Your task to perform on an android device: Search for "razer thresher" on newegg.com, select the first entry, add it to the cart, then select checkout. Image 0: 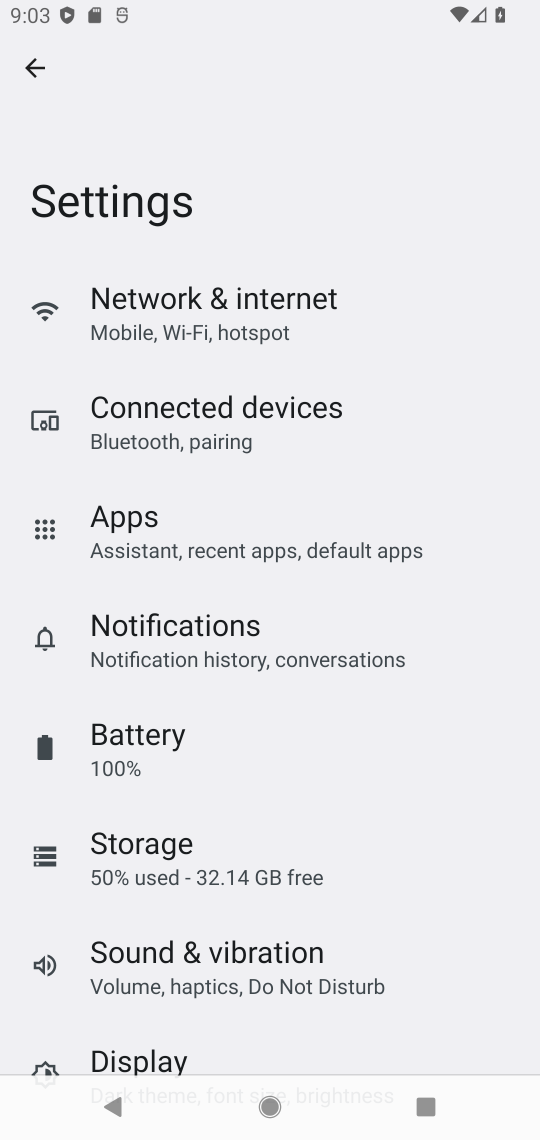
Step 0: press home button
Your task to perform on an android device: Search for "razer thresher" on newegg.com, select the first entry, add it to the cart, then select checkout. Image 1: 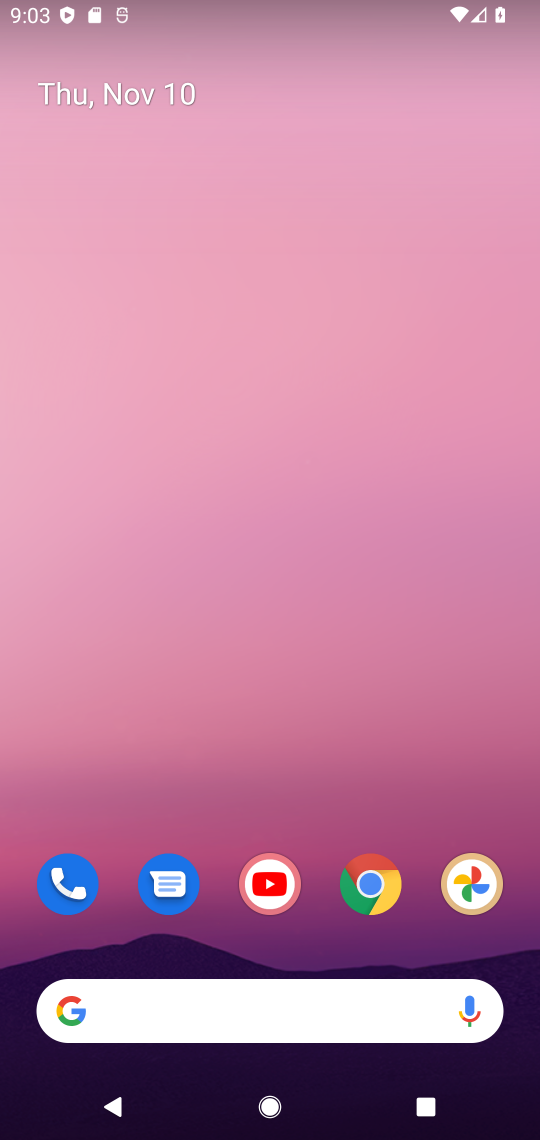
Step 1: click (232, 1004)
Your task to perform on an android device: Search for "razer thresher" on newegg.com, select the first entry, add it to the cart, then select checkout. Image 2: 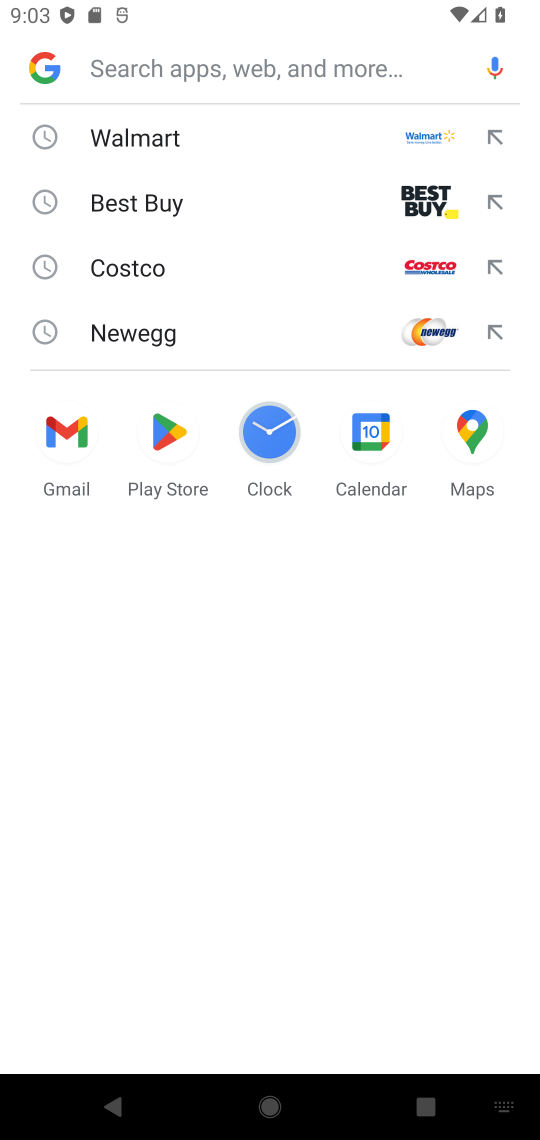
Step 2: click (322, 347)
Your task to perform on an android device: Search for "razer thresher" on newegg.com, select the first entry, add it to the cart, then select checkout. Image 3: 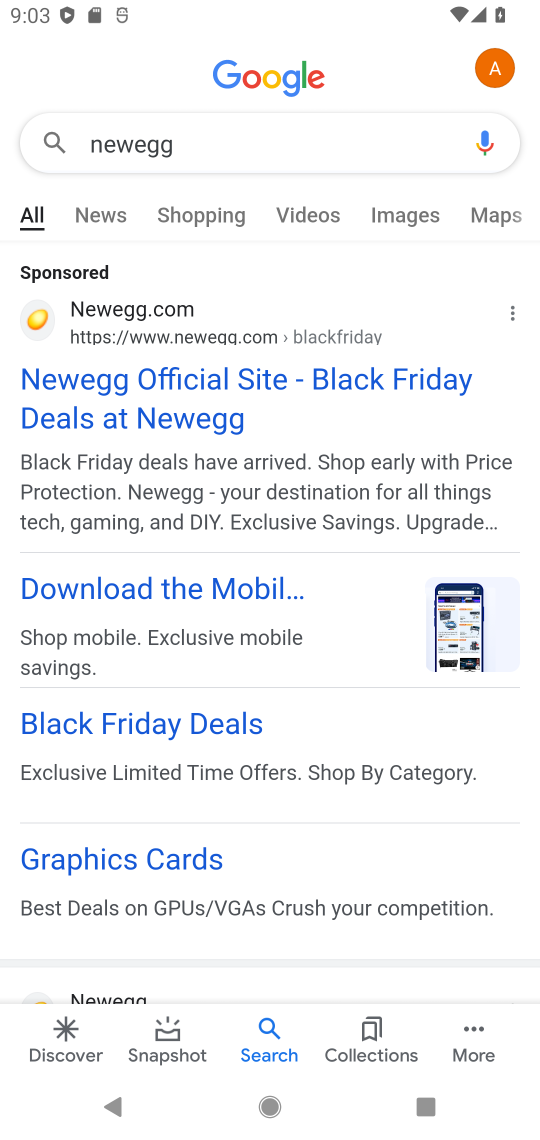
Step 3: click (106, 311)
Your task to perform on an android device: Search for "razer thresher" on newegg.com, select the first entry, add it to the cart, then select checkout. Image 4: 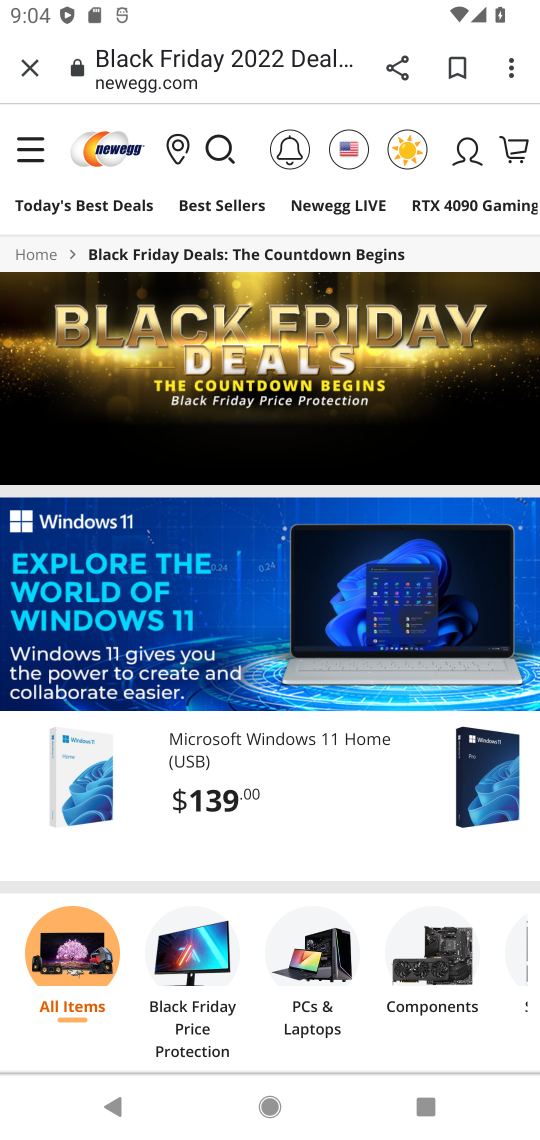
Step 4: click (217, 144)
Your task to perform on an android device: Search for "razer thresher" on newegg.com, select the first entry, add it to the cart, then select checkout. Image 5: 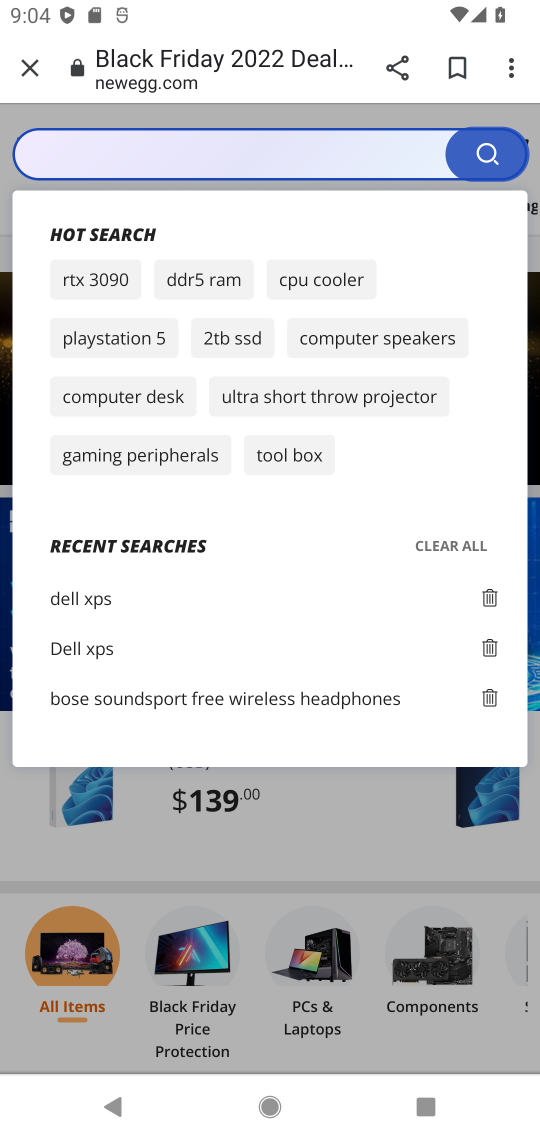
Step 5: click (173, 144)
Your task to perform on an android device: Search for "razer thresher" on newegg.com, select the first entry, add it to the cart, then select checkout. Image 6: 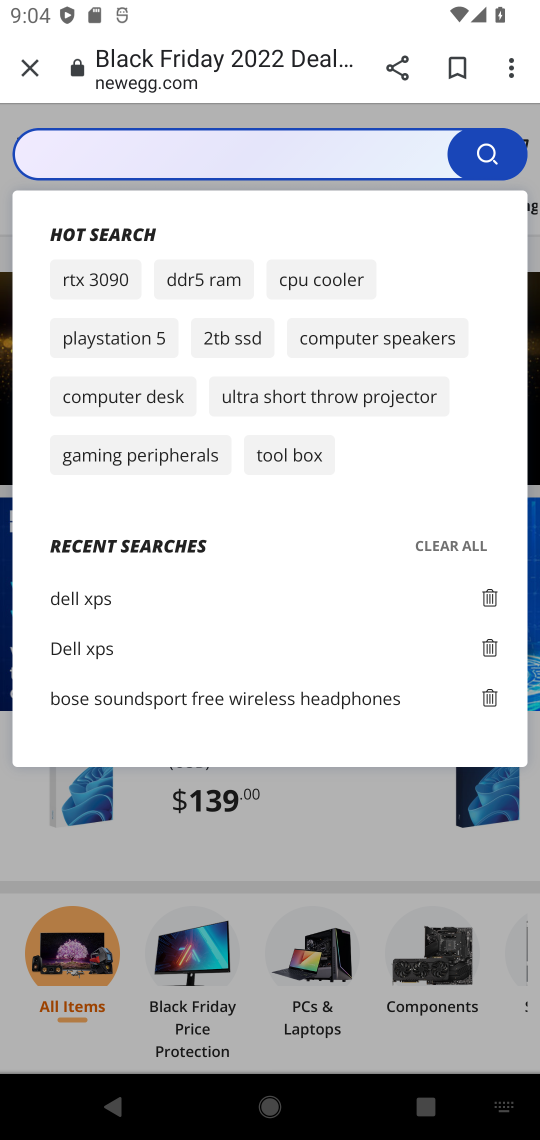
Step 6: type "razer thresher"
Your task to perform on an android device: Search for "razer thresher" on newegg.com, select the first entry, add it to the cart, then select checkout. Image 7: 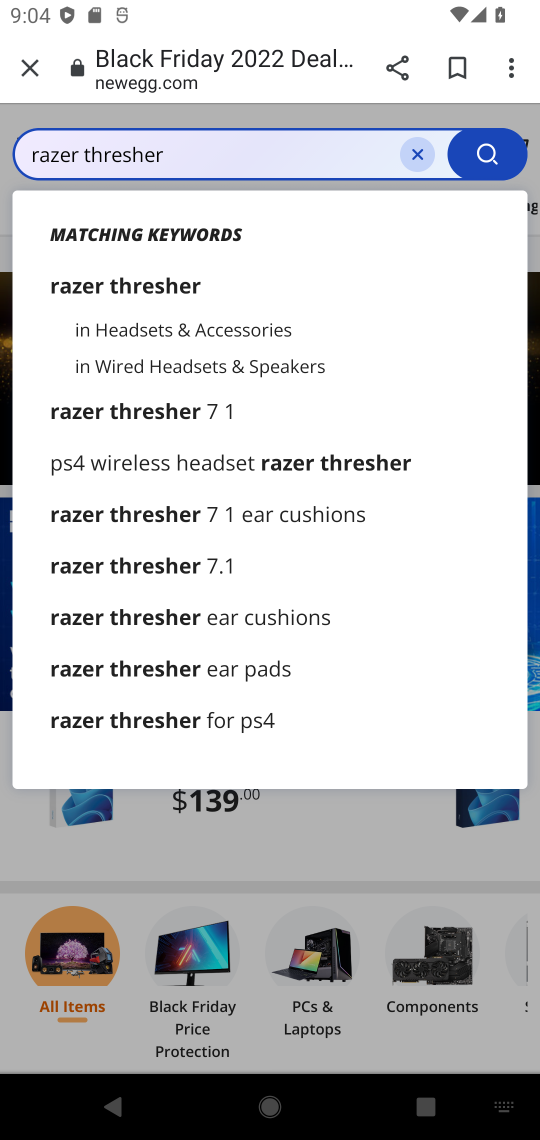
Step 7: click (127, 288)
Your task to perform on an android device: Search for "razer thresher" on newegg.com, select the first entry, add it to the cart, then select checkout. Image 8: 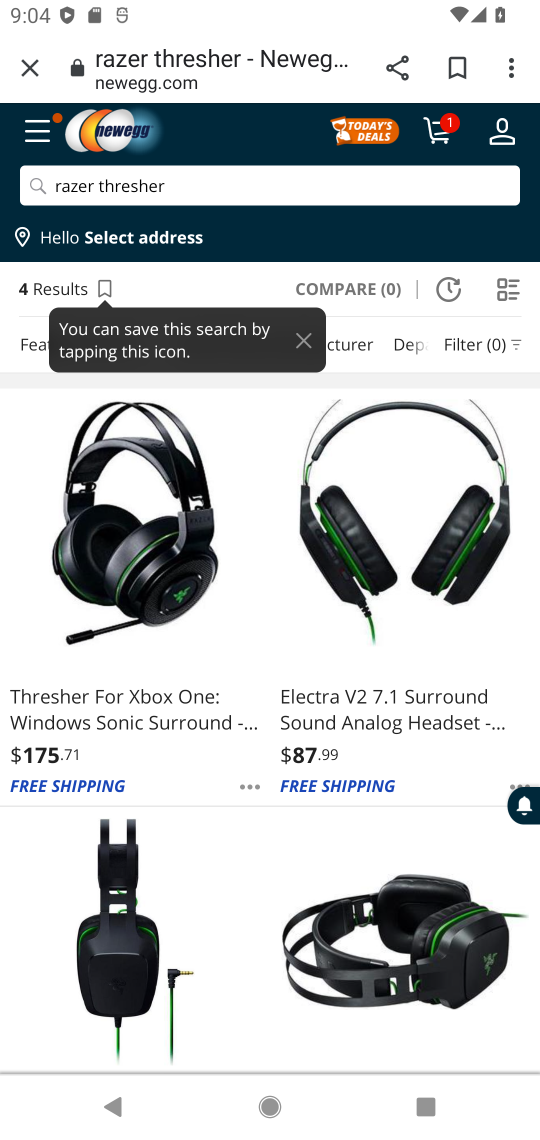
Step 8: click (124, 613)
Your task to perform on an android device: Search for "razer thresher" on newegg.com, select the first entry, add it to the cart, then select checkout. Image 9: 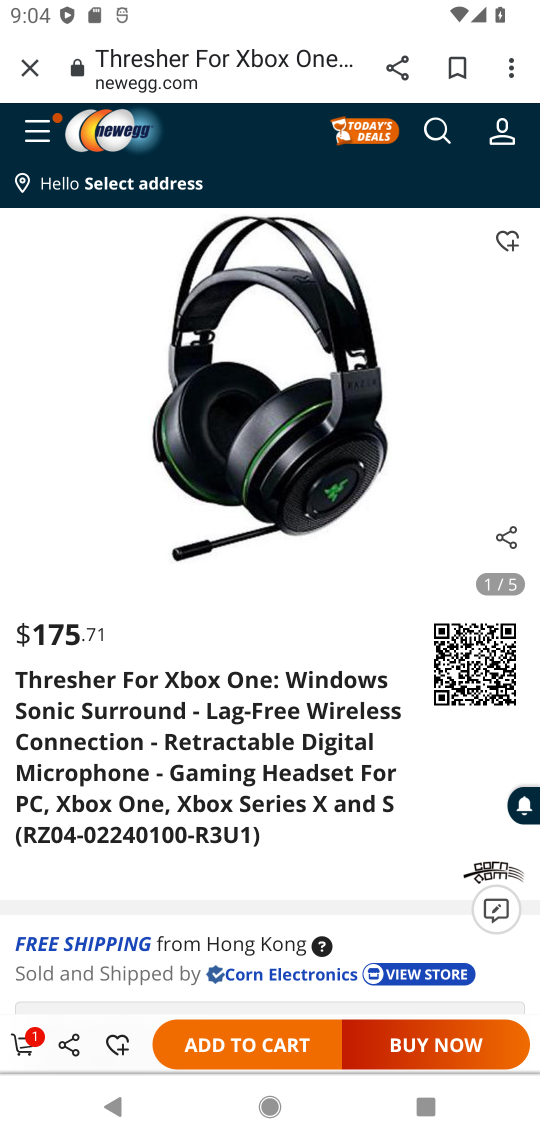
Step 9: click (224, 1047)
Your task to perform on an android device: Search for "razer thresher" on newegg.com, select the first entry, add it to the cart, then select checkout. Image 10: 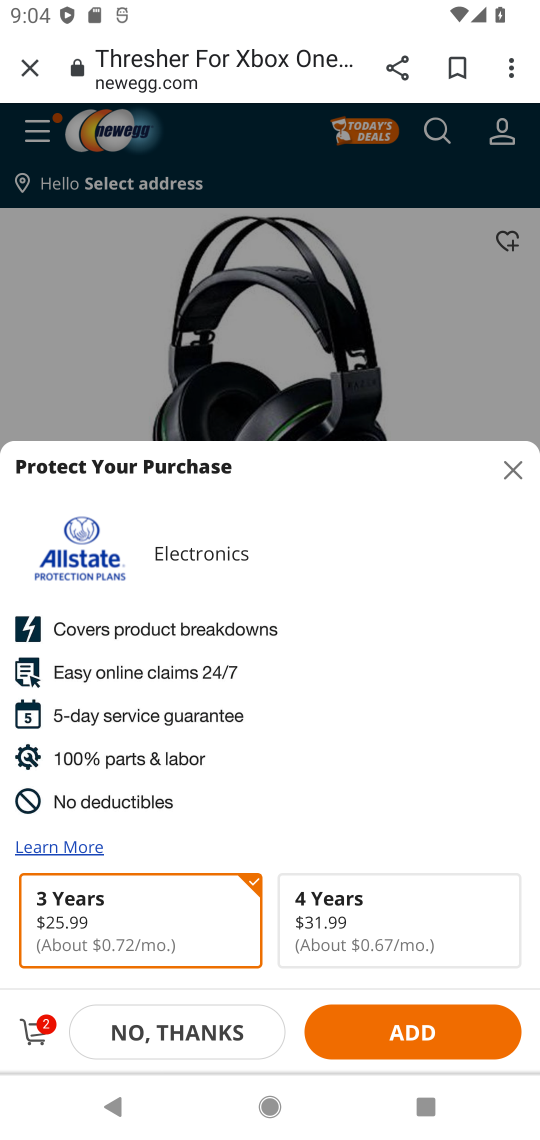
Step 10: click (45, 1028)
Your task to perform on an android device: Search for "razer thresher" on newegg.com, select the first entry, add it to the cart, then select checkout. Image 11: 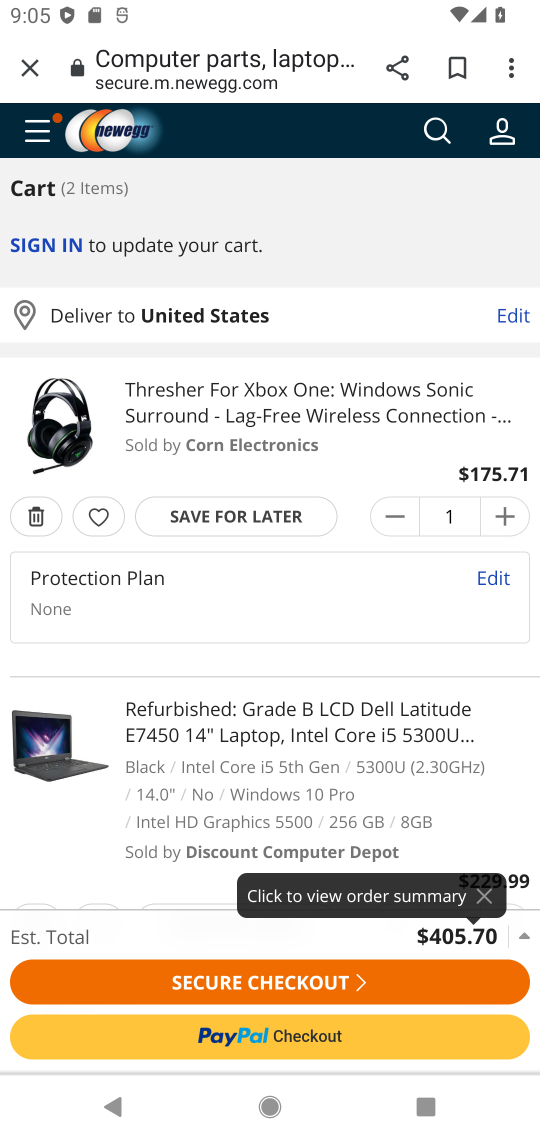
Step 11: click (262, 983)
Your task to perform on an android device: Search for "razer thresher" on newegg.com, select the first entry, add it to the cart, then select checkout. Image 12: 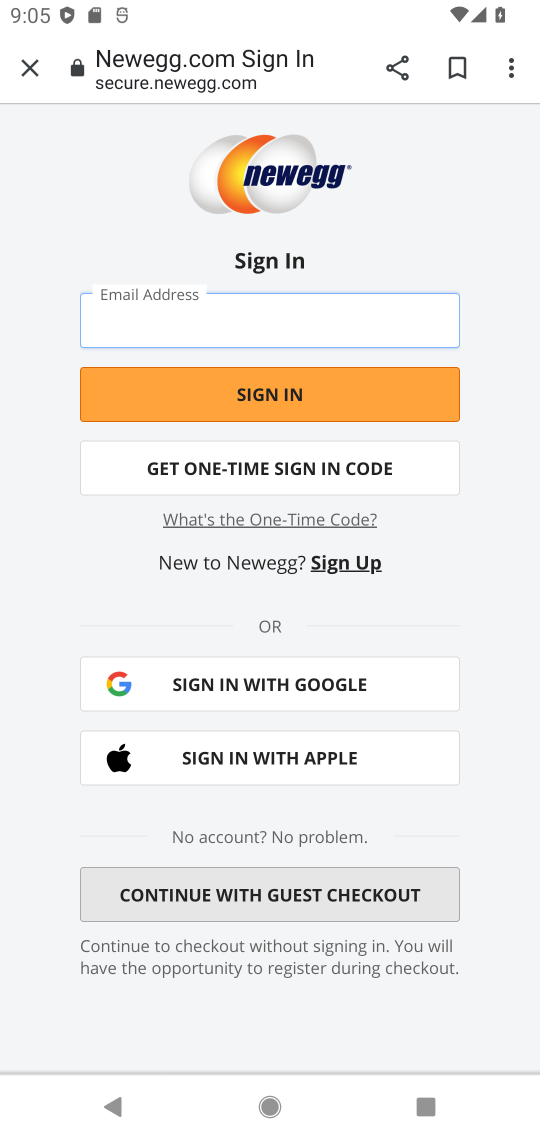
Step 12: task complete